Your task to perform on an android device: turn on translation in the chrome app Image 0: 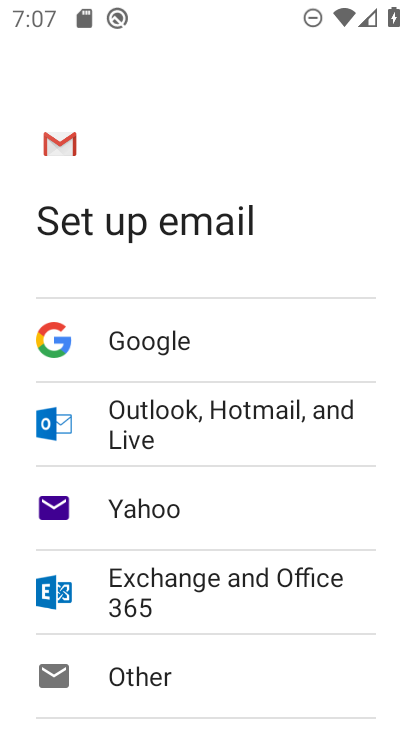
Step 0: press home button
Your task to perform on an android device: turn on translation in the chrome app Image 1: 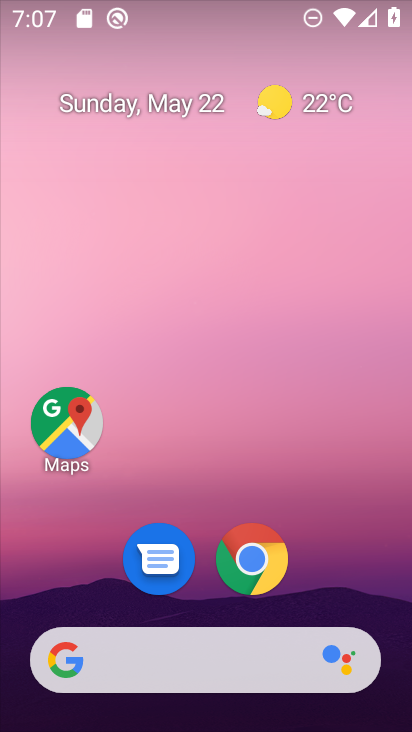
Step 1: drag from (192, 680) to (109, 243)
Your task to perform on an android device: turn on translation in the chrome app Image 2: 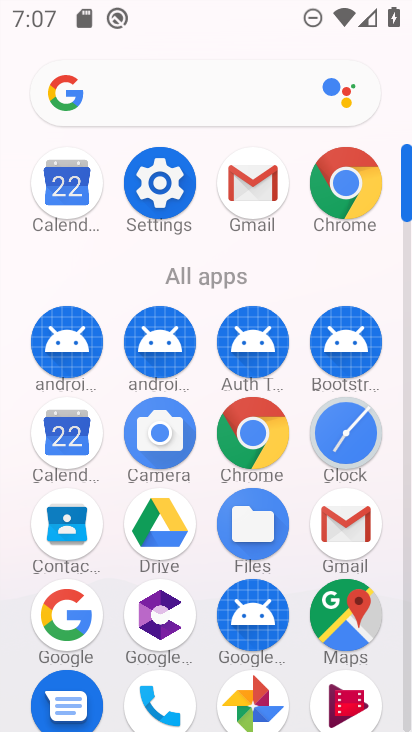
Step 2: click (232, 437)
Your task to perform on an android device: turn on translation in the chrome app Image 3: 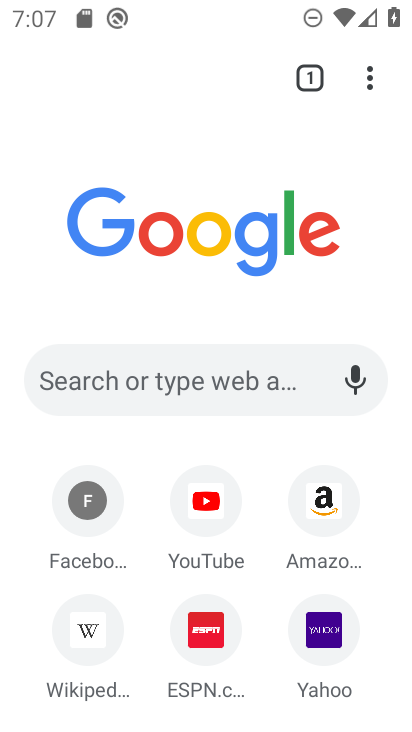
Step 3: click (366, 101)
Your task to perform on an android device: turn on translation in the chrome app Image 4: 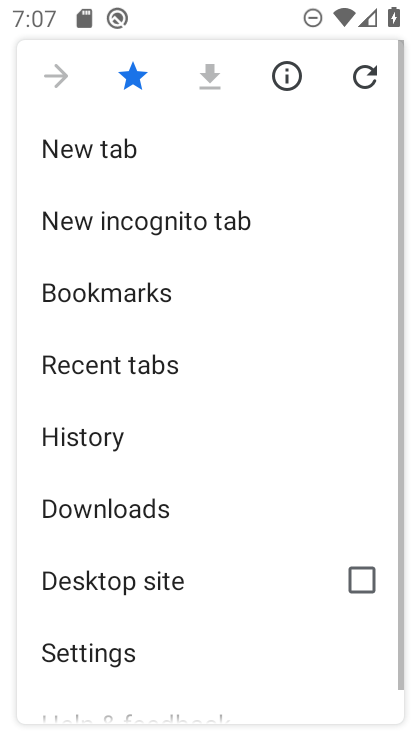
Step 4: drag from (194, 590) to (202, 368)
Your task to perform on an android device: turn on translation in the chrome app Image 5: 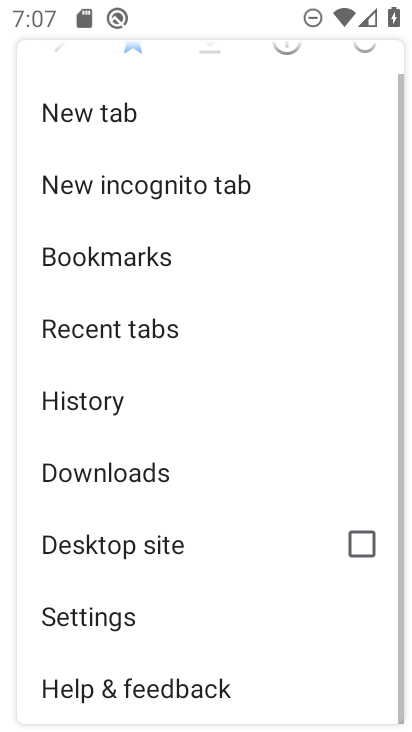
Step 5: click (138, 619)
Your task to perform on an android device: turn on translation in the chrome app Image 6: 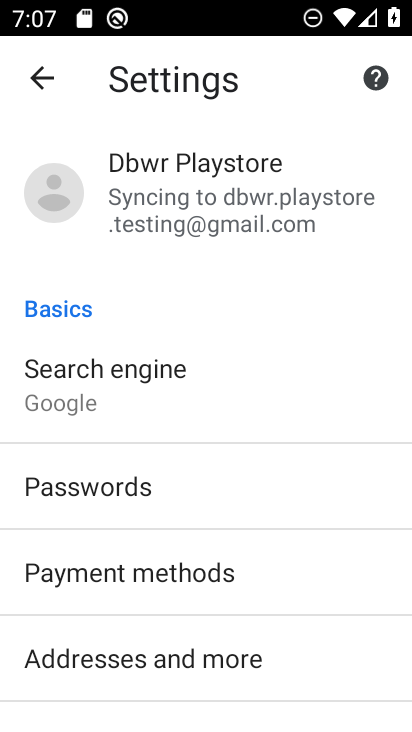
Step 6: drag from (162, 647) to (213, 383)
Your task to perform on an android device: turn on translation in the chrome app Image 7: 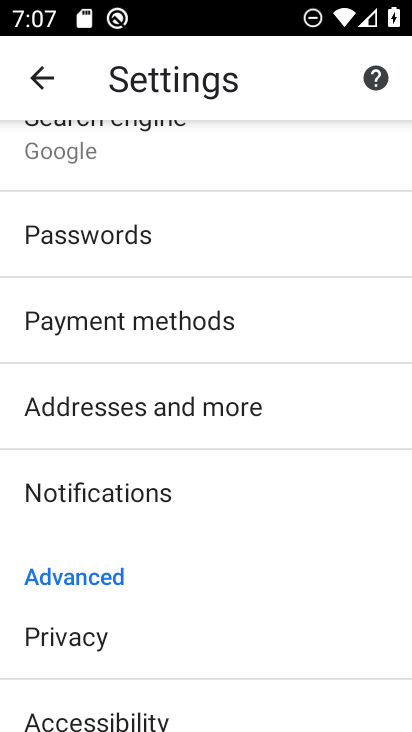
Step 7: drag from (167, 605) to (194, 403)
Your task to perform on an android device: turn on translation in the chrome app Image 8: 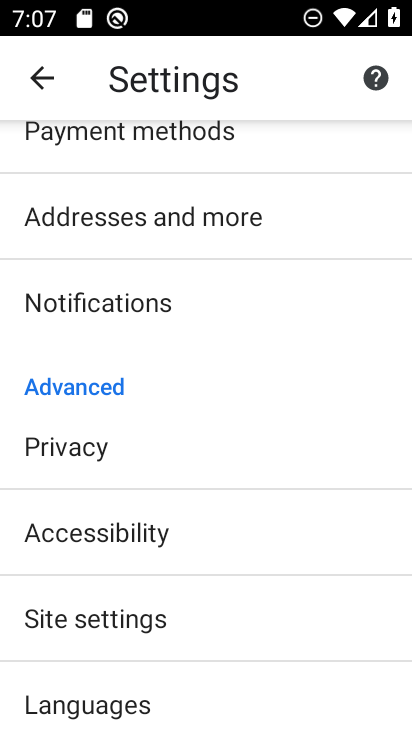
Step 8: click (112, 709)
Your task to perform on an android device: turn on translation in the chrome app Image 9: 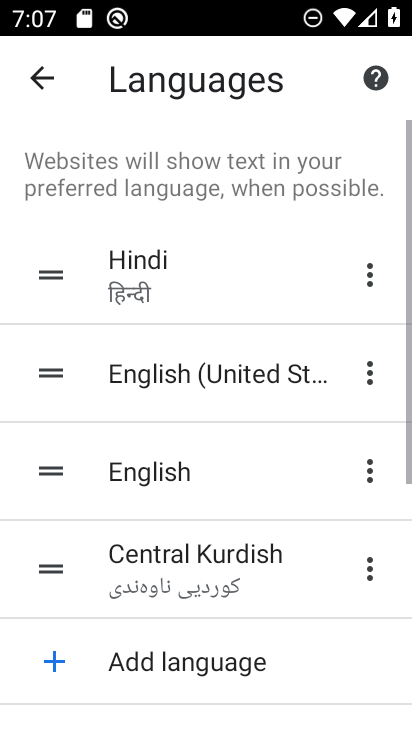
Step 9: task complete